Your task to perform on an android device: turn notification dots on Image 0: 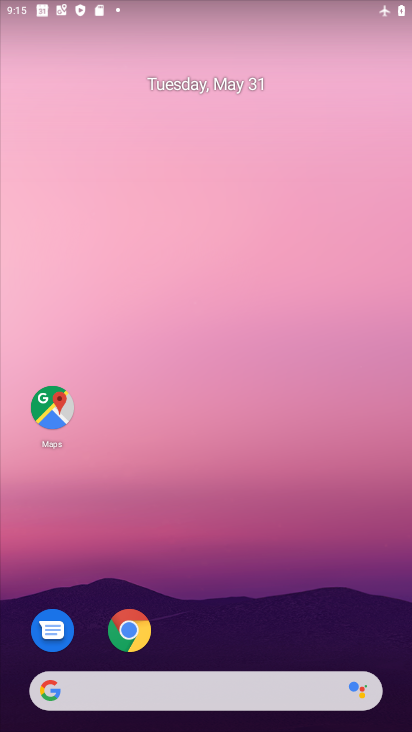
Step 0: drag from (244, 579) to (232, 275)
Your task to perform on an android device: turn notification dots on Image 1: 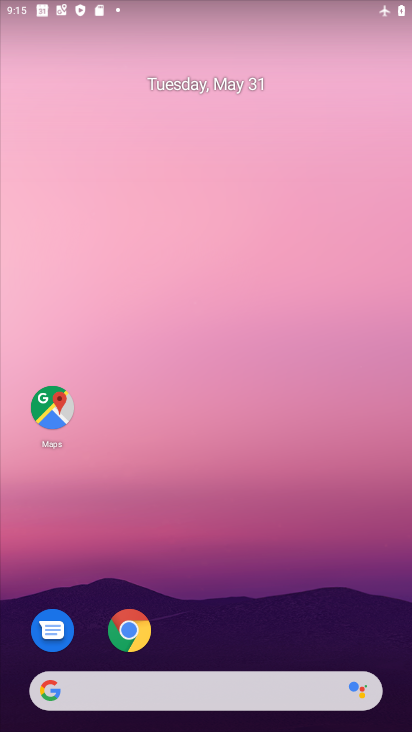
Step 1: drag from (231, 603) to (243, 180)
Your task to perform on an android device: turn notification dots on Image 2: 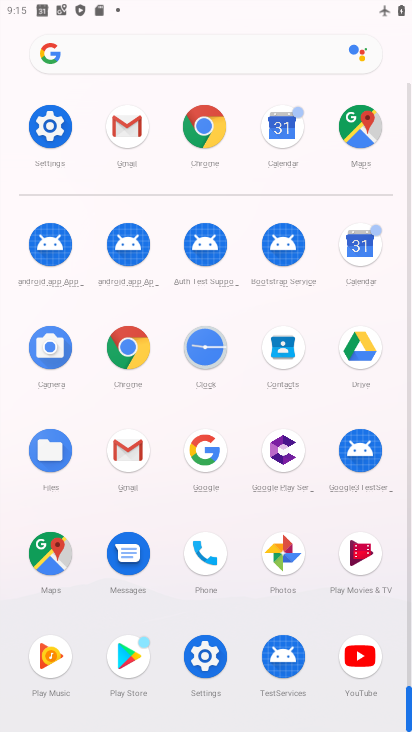
Step 2: click (44, 129)
Your task to perform on an android device: turn notification dots on Image 3: 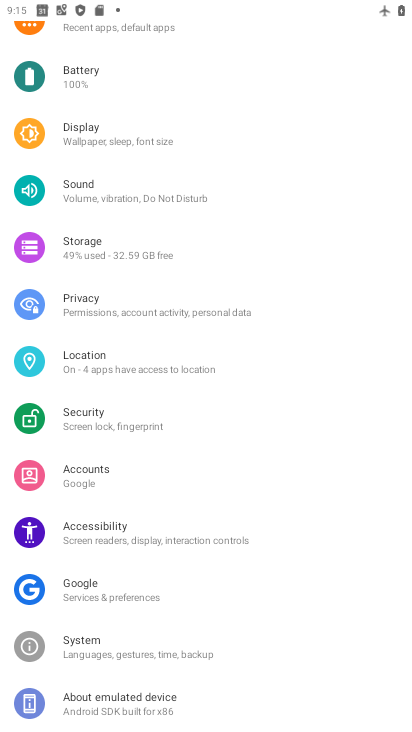
Step 3: drag from (186, 91) to (201, 161)
Your task to perform on an android device: turn notification dots on Image 4: 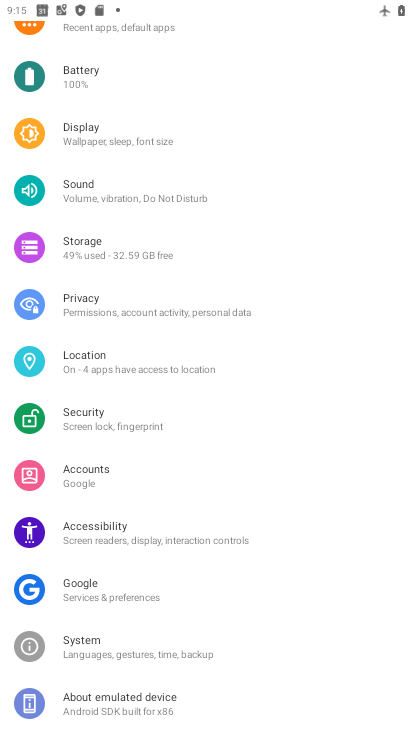
Step 4: drag from (204, 59) to (214, 499)
Your task to perform on an android device: turn notification dots on Image 5: 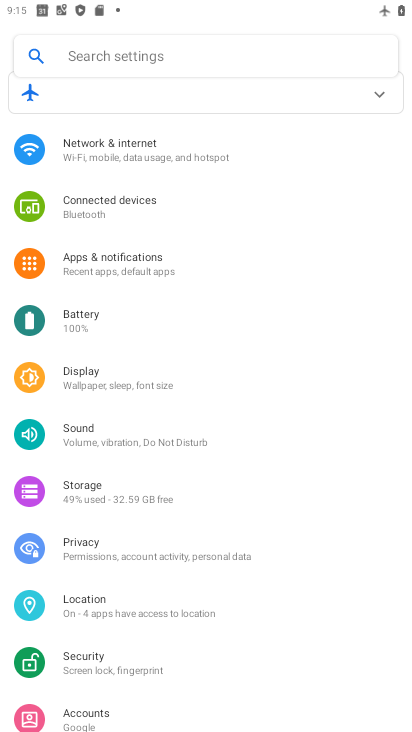
Step 5: click (232, 37)
Your task to perform on an android device: turn notification dots on Image 6: 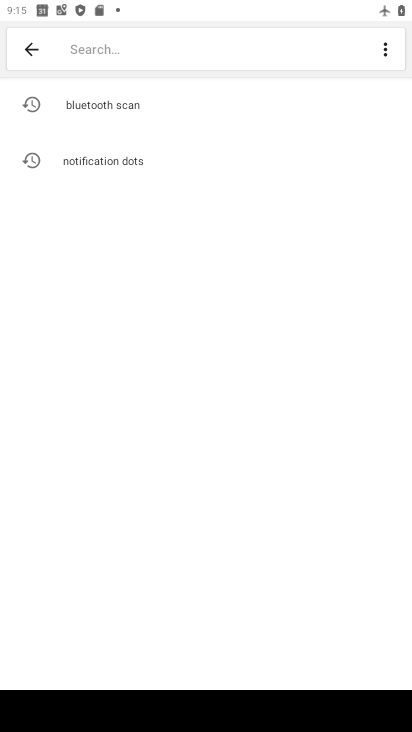
Step 6: click (121, 160)
Your task to perform on an android device: turn notification dots on Image 7: 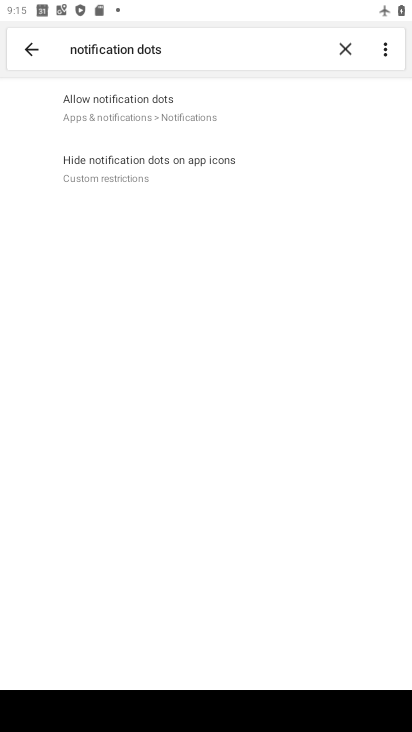
Step 7: click (123, 103)
Your task to perform on an android device: turn notification dots on Image 8: 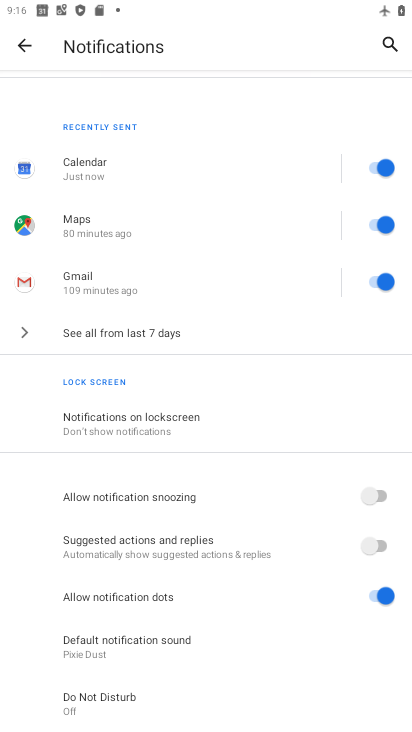
Step 8: task complete